Your task to perform on an android device: turn on notifications settings in the gmail app Image 0: 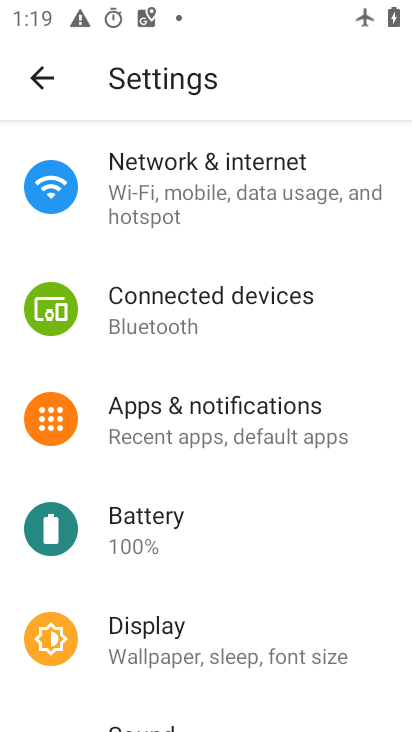
Step 0: press home button
Your task to perform on an android device: turn on notifications settings in the gmail app Image 1: 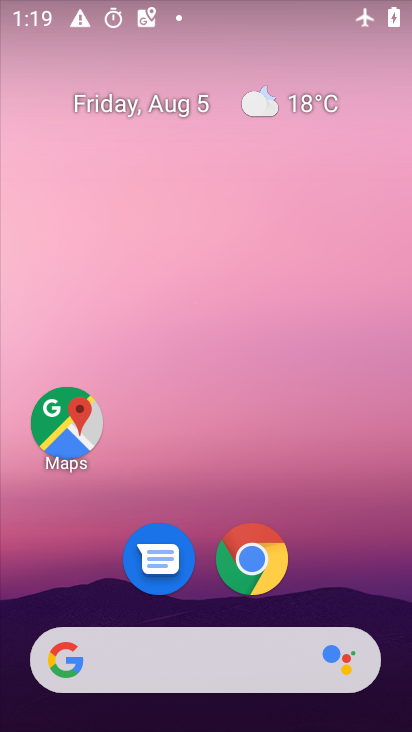
Step 1: drag from (17, 717) to (183, 317)
Your task to perform on an android device: turn on notifications settings in the gmail app Image 2: 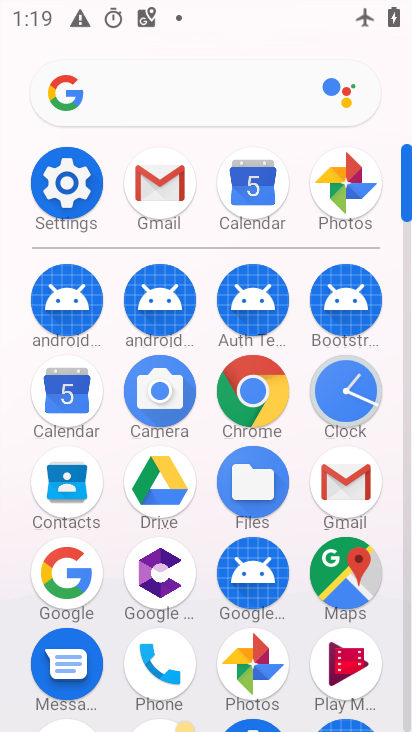
Step 2: click (362, 476)
Your task to perform on an android device: turn on notifications settings in the gmail app Image 3: 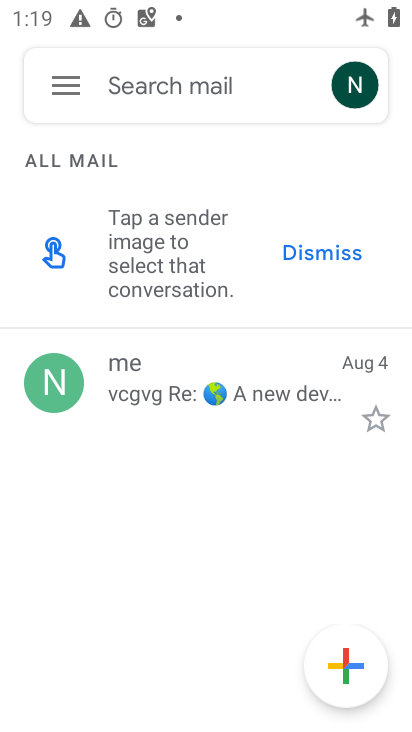
Step 3: click (80, 87)
Your task to perform on an android device: turn on notifications settings in the gmail app Image 4: 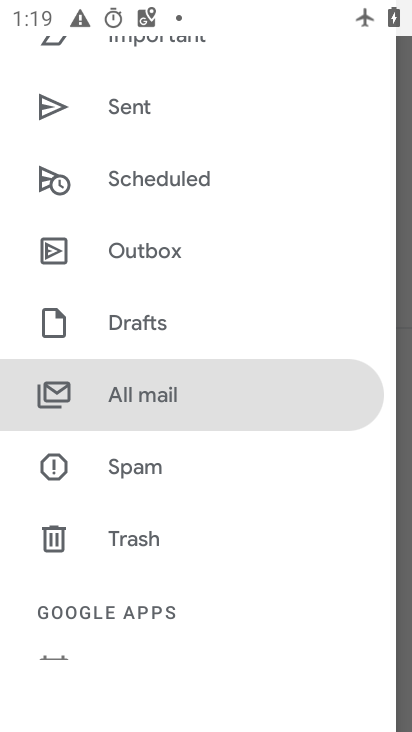
Step 4: drag from (321, 624) to (400, 270)
Your task to perform on an android device: turn on notifications settings in the gmail app Image 5: 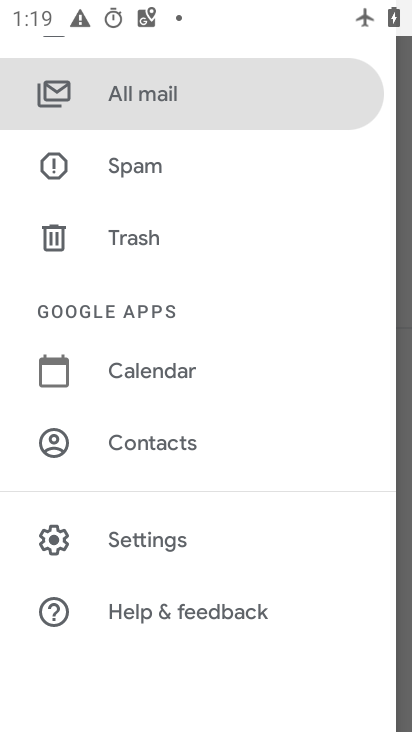
Step 5: click (147, 543)
Your task to perform on an android device: turn on notifications settings in the gmail app Image 6: 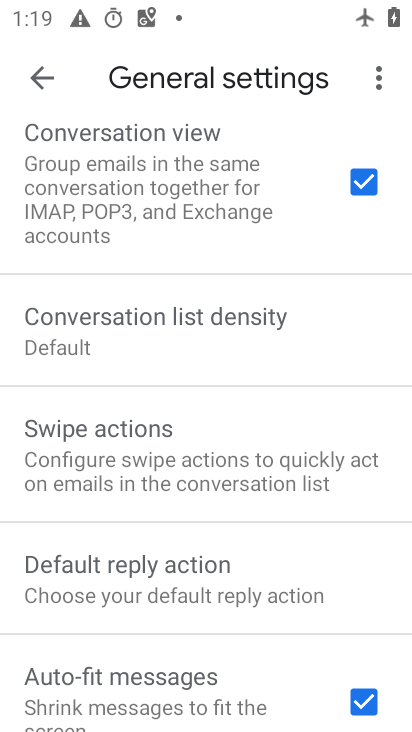
Step 6: click (40, 94)
Your task to perform on an android device: turn on notifications settings in the gmail app Image 7: 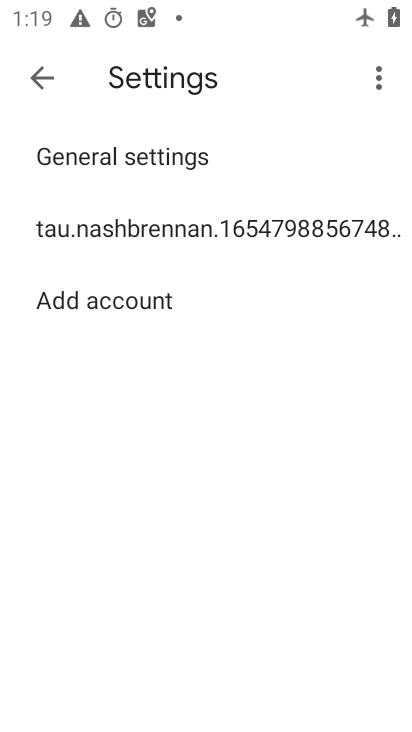
Step 7: click (136, 211)
Your task to perform on an android device: turn on notifications settings in the gmail app Image 8: 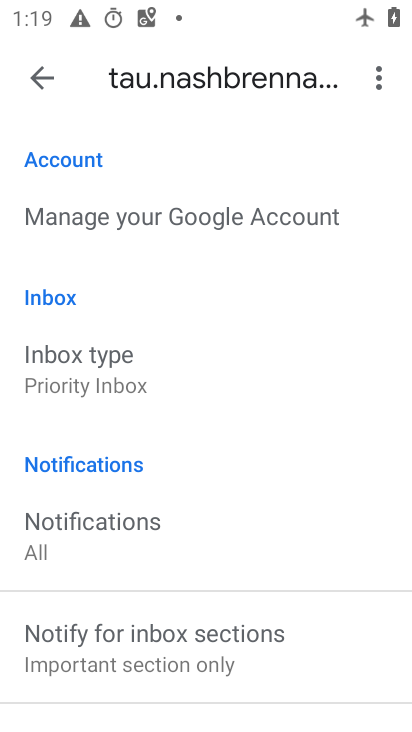
Step 8: click (125, 537)
Your task to perform on an android device: turn on notifications settings in the gmail app Image 9: 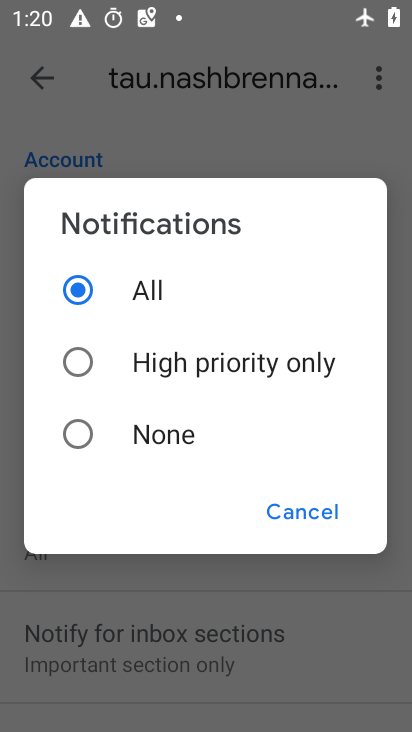
Step 9: task complete